Your task to perform on an android device: Open the calendar and show me this week's events Image 0: 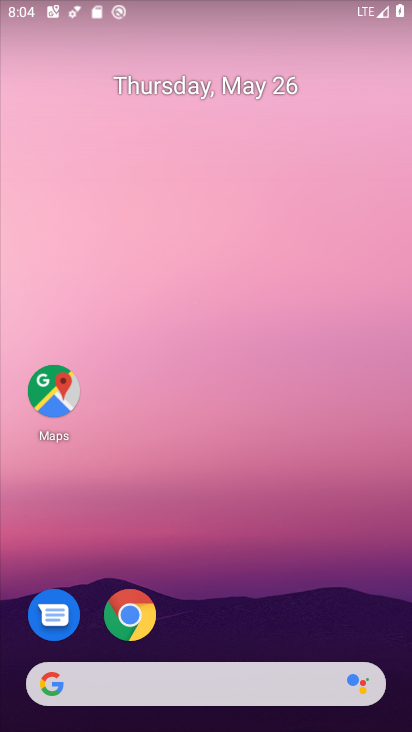
Step 0: drag from (277, 635) to (310, 290)
Your task to perform on an android device: Open the calendar and show me this week's events Image 1: 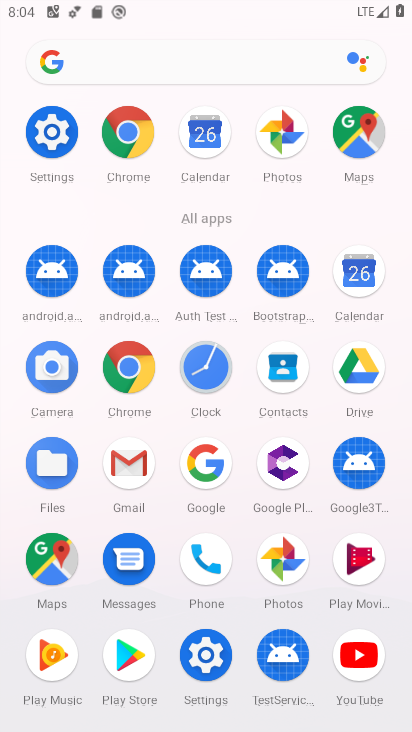
Step 1: click (359, 262)
Your task to perform on an android device: Open the calendar and show me this week's events Image 2: 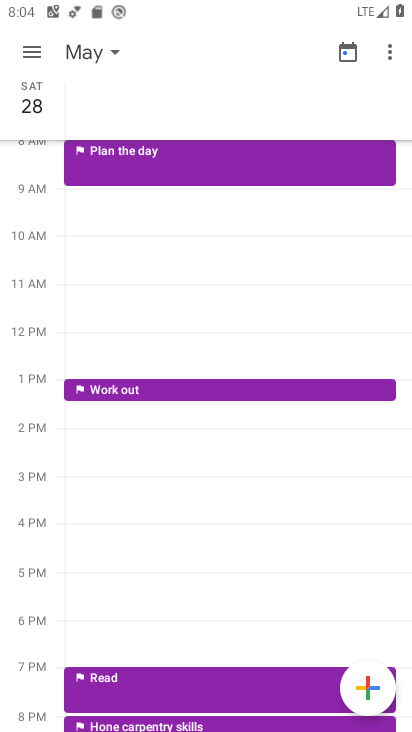
Step 2: click (23, 54)
Your task to perform on an android device: Open the calendar and show me this week's events Image 3: 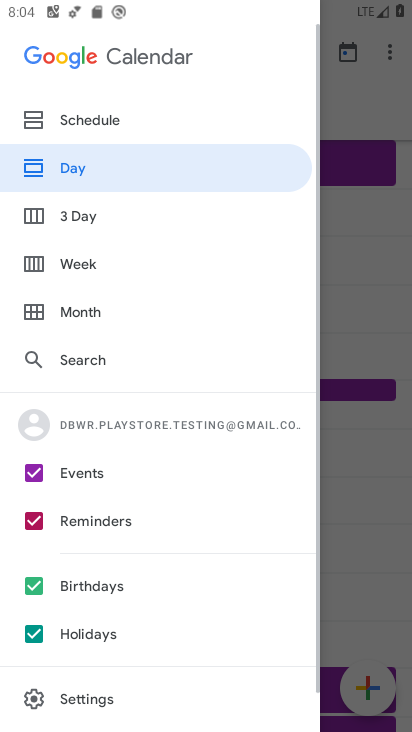
Step 3: click (83, 276)
Your task to perform on an android device: Open the calendar and show me this week's events Image 4: 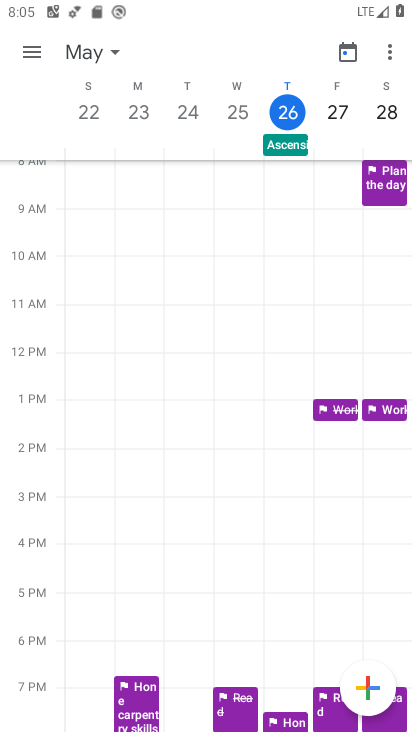
Step 4: task complete